Your task to perform on an android device: turn off notifications settings in the gmail app Image 0: 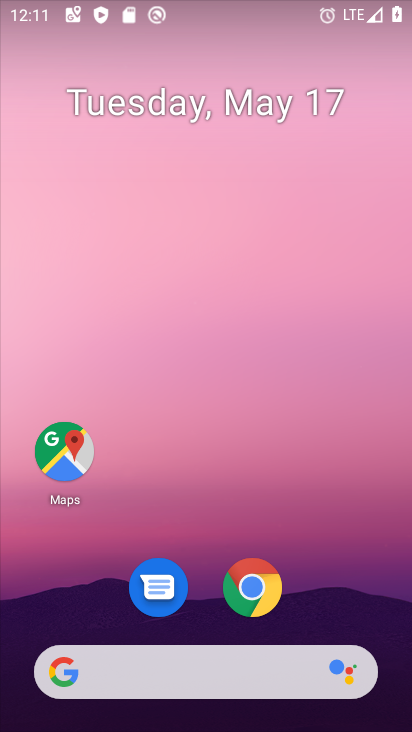
Step 0: drag from (371, 615) to (273, 78)
Your task to perform on an android device: turn off notifications settings in the gmail app Image 1: 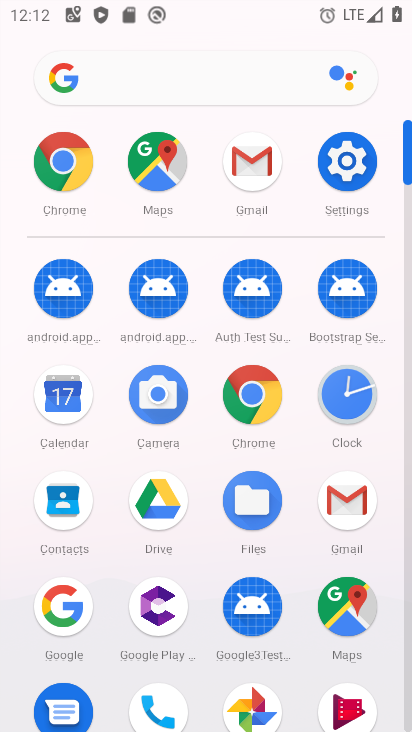
Step 1: click (354, 521)
Your task to perform on an android device: turn off notifications settings in the gmail app Image 2: 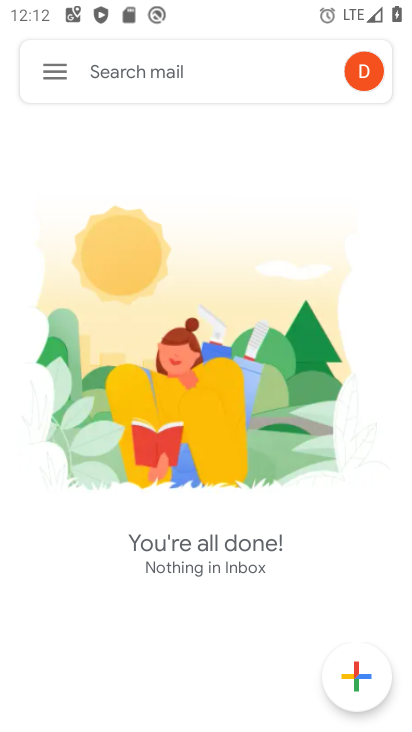
Step 2: click (58, 72)
Your task to perform on an android device: turn off notifications settings in the gmail app Image 3: 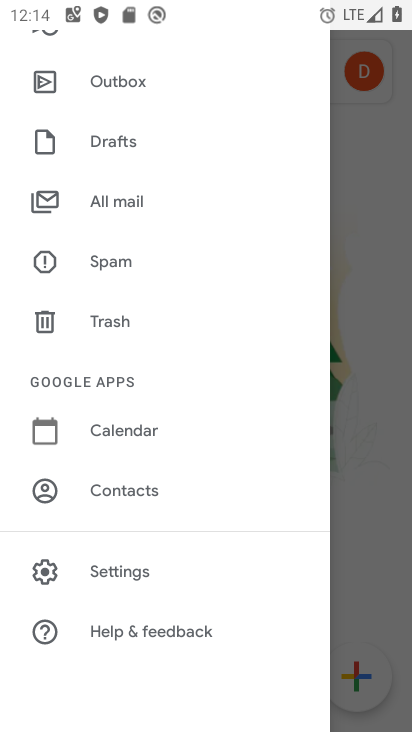
Step 3: click (136, 584)
Your task to perform on an android device: turn off notifications settings in the gmail app Image 4: 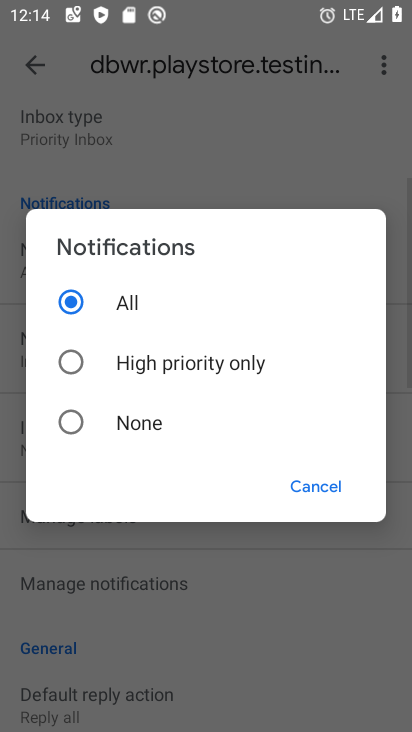
Step 4: click (328, 488)
Your task to perform on an android device: turn off notifications settings in the gmail app Image 5: 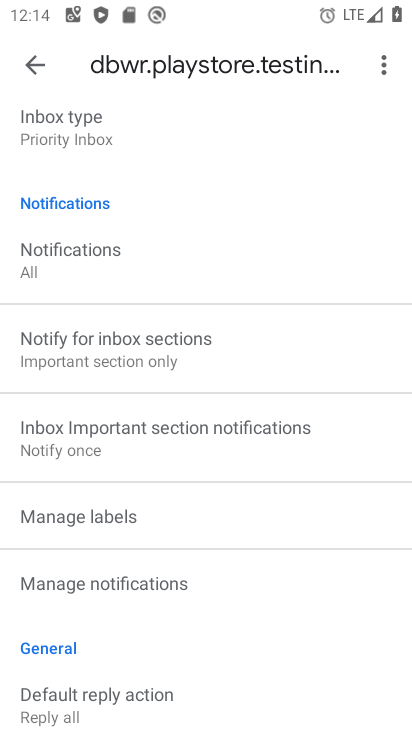
Step 5: click (109, 270)
Your task to perform on an android device: turn off notifications settings in the gmail app Image 6: 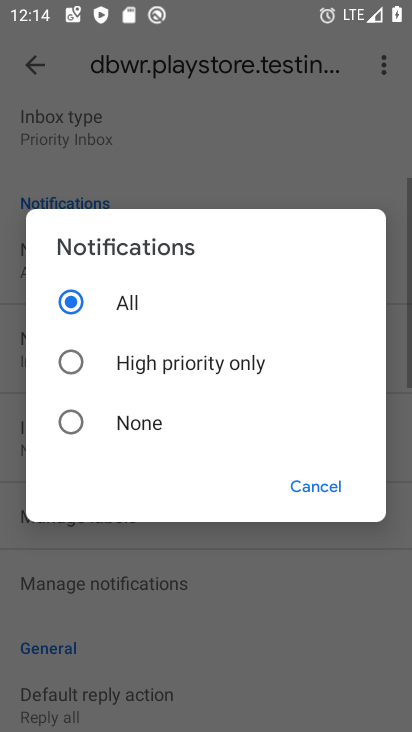
Step 6: click (134, 423)
Your task to perform on an android device: turn off notifications settings in the gmail app Image 7: 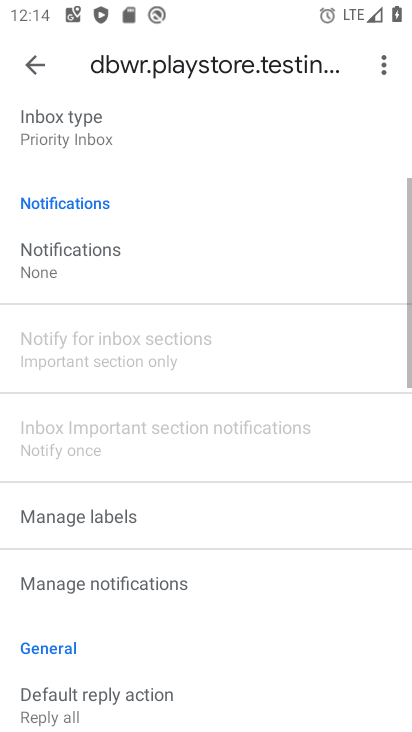
Step 7: task complete